Your task to perform on an android device: Open a new Chrome tab Image 0: 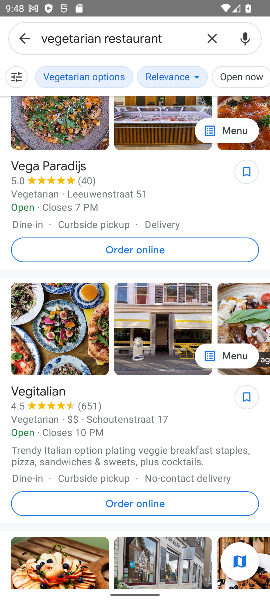
Step 0: press home button
Your task to perform on an android device: Open a new Chrome tab Image 1: 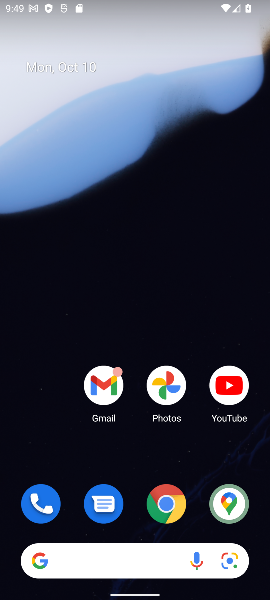
Step 1: click (167, 502)
Your task to perform on an android device: Open a new Chrome tab Image 2: 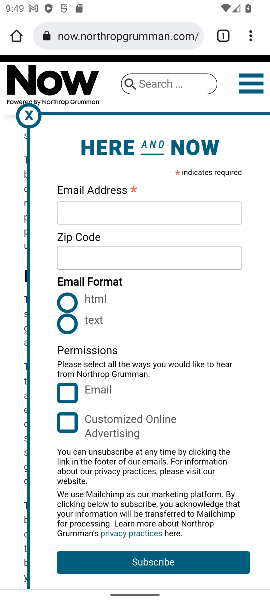
Step 2: click (145, 27)
Your task to perform on an android device: Open a new Chrome tab Image 3: 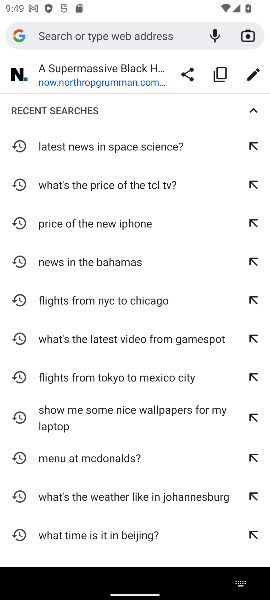
Step 3: press back button
Your task to perform on an android device: Open a new Chrome tab Image 4: 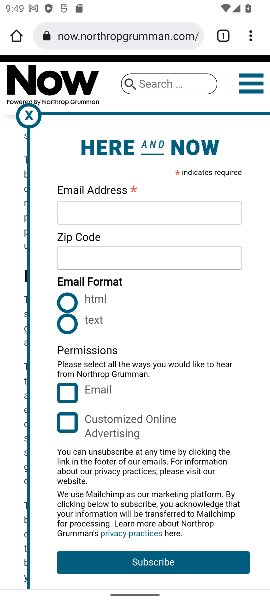
Step 4: click (247, 39)
Your task to perform on an android device: Open a new Chrome tab Image 5: 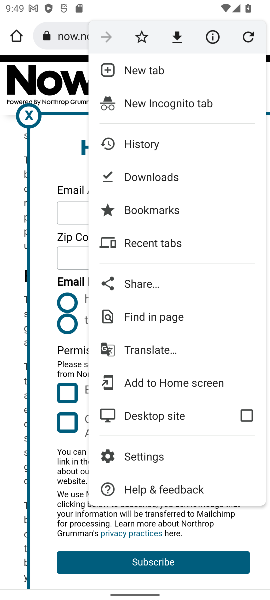
Step 5: click (147, 73)
Your task to perform on an android device: Open a new Chrome tab Image 6: 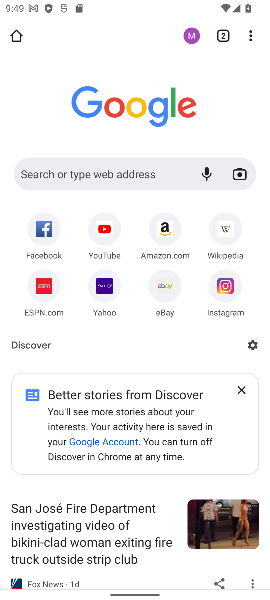
Step 6: task complete